Your task to perform on an android device: Open CNN.com Image 0: 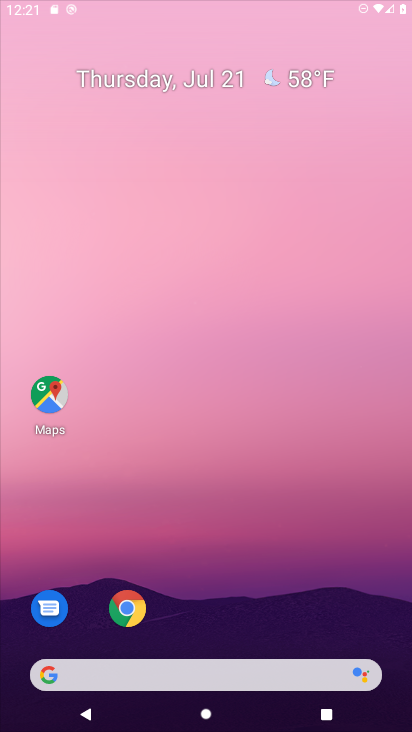
Step 0: press home button
Your task to perform on an android device: Open CNN.com Image 1: 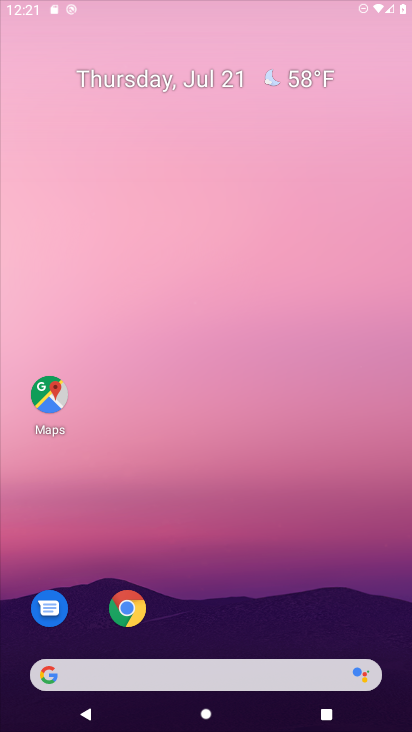
Step 1: press home button
Your task to perform on an android device: Open CNN.com Image 2: 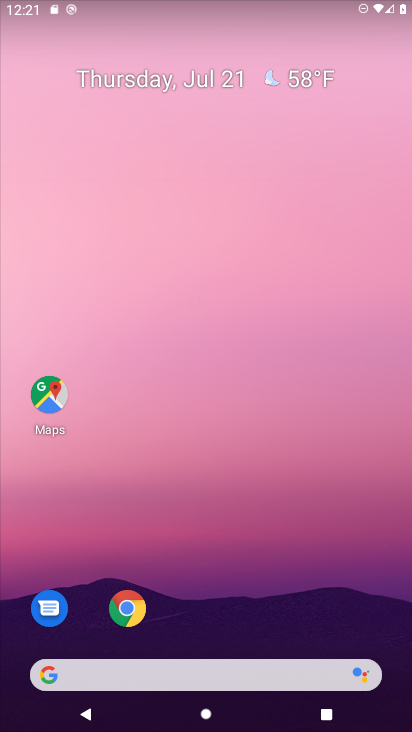
Step 2: click (47, 677)
Your task to perform on an android device: Open CNN.com Image 3: 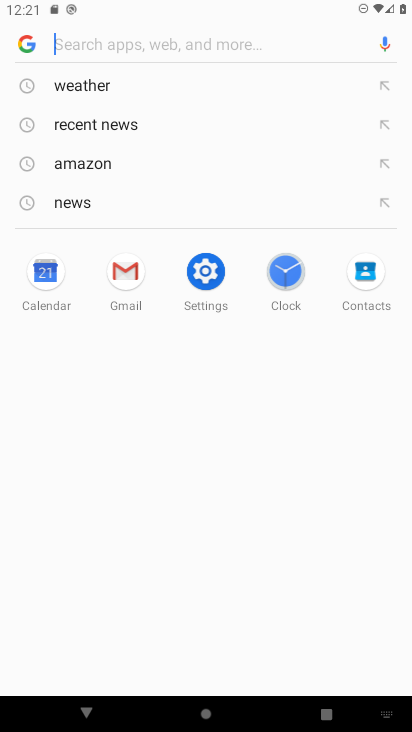
Step 3: type "CNN.com"
Your task to perform on an android device: Open CNN.com Image 4: 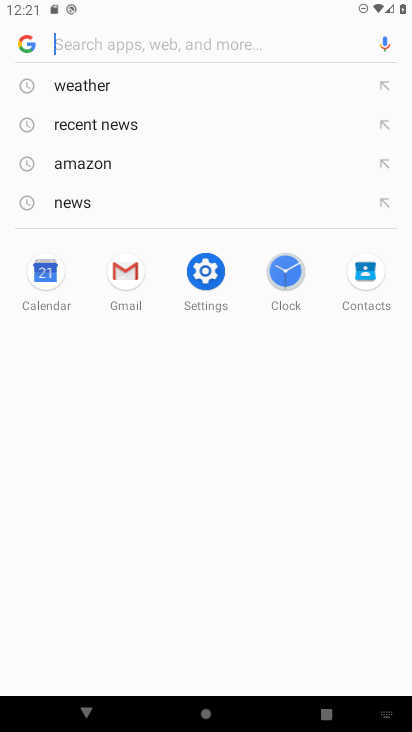
Step 4: click (81, 45)
Your task to perform on an android device: Open CNN.com Image 5: 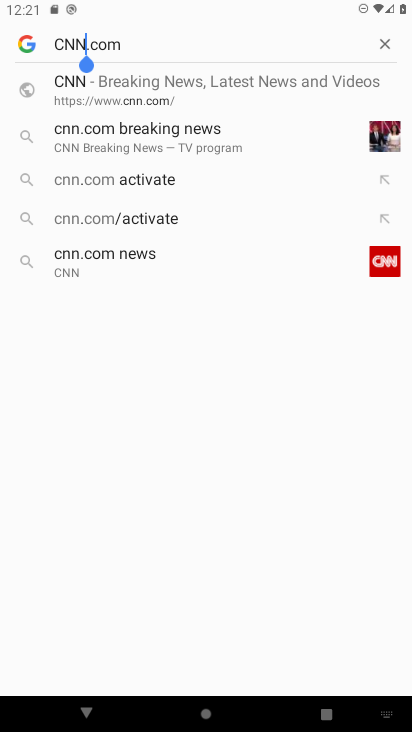
Step 5: press enter
Your task to perform on an android device: Open CNN.com Image 6: 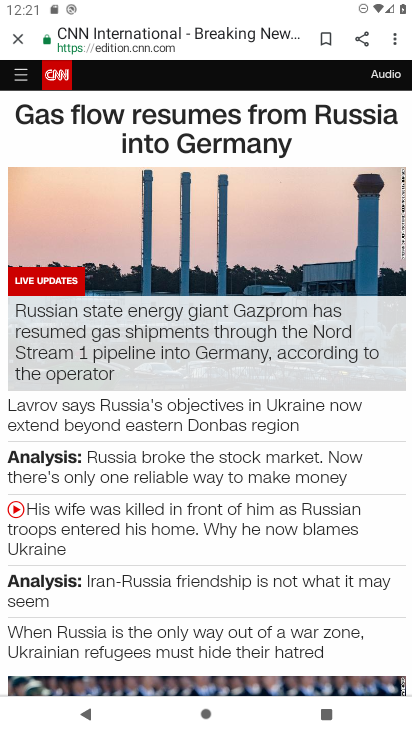
Step 6: task complete